Your task to perform on an android device: Go to ESPN.com Image 0: 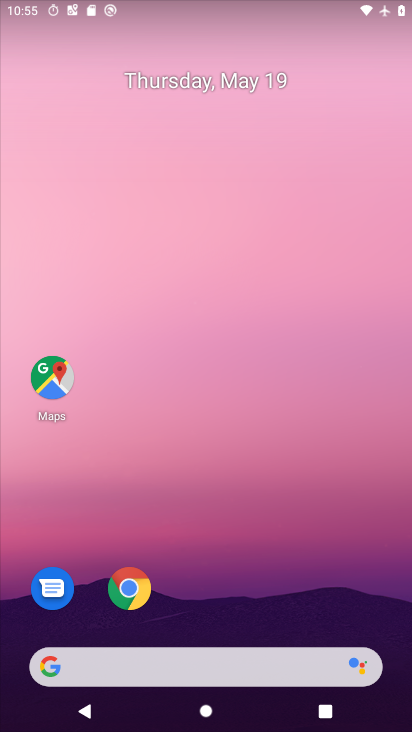
Step 0: press home button
Your task to perform on an android device: Go to ESPN.com Image 1: 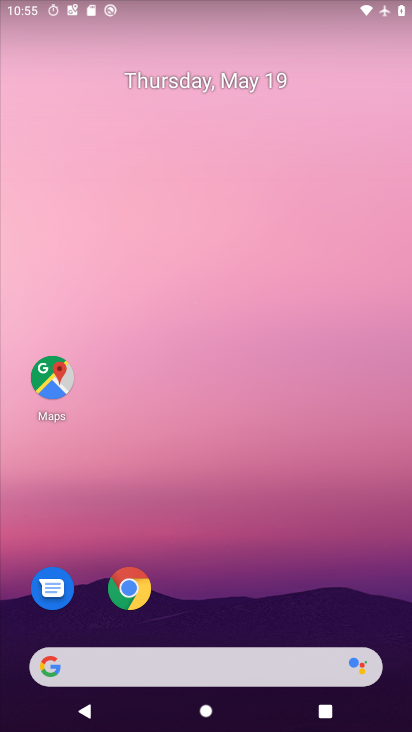
Step 1: click (132, 593)
Your task to perform on an android device: Go to ESPN.com Image 2: 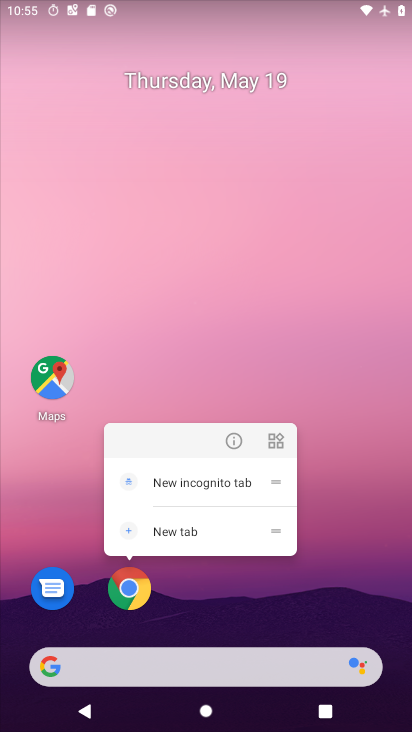
Step 2: click (133, 578)
Your task to perform on an android device: Go to ESPN.com Image 3: 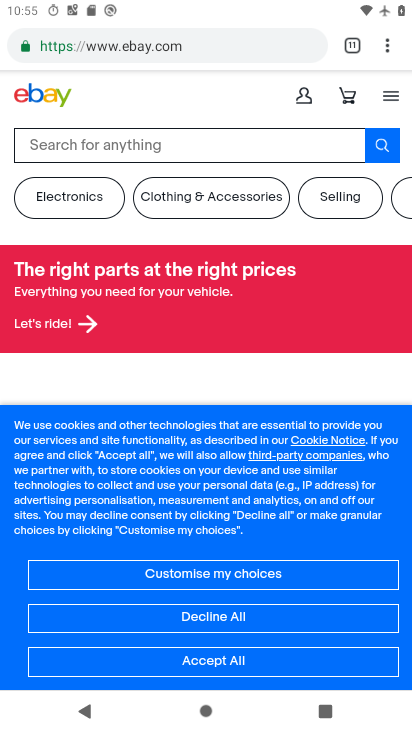
Step 3: drag from (390, 47) to (333, 85)
Your task to perform on an android device: Go to ESPN.com Image 4: 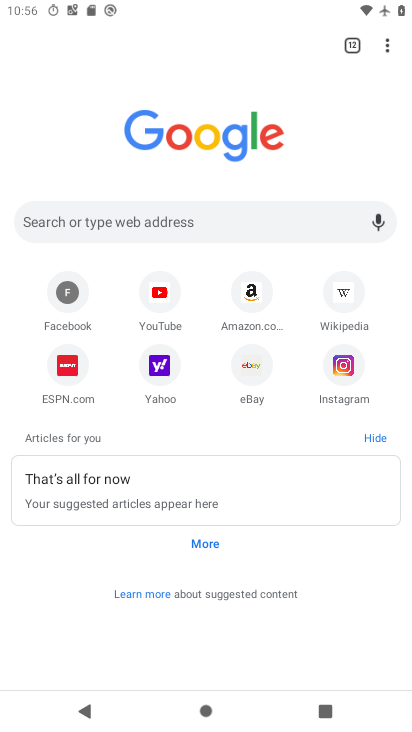
Step 4: click (70, 371)
Your task to perform on an android device: Go to ESPN.com Image 5: 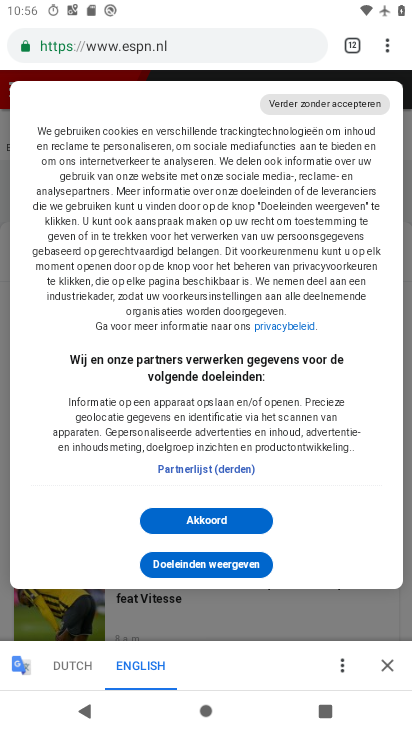
Step 5: click (154, 665)
Your task to perform on an android device: Go to ESPN.com Image 6: 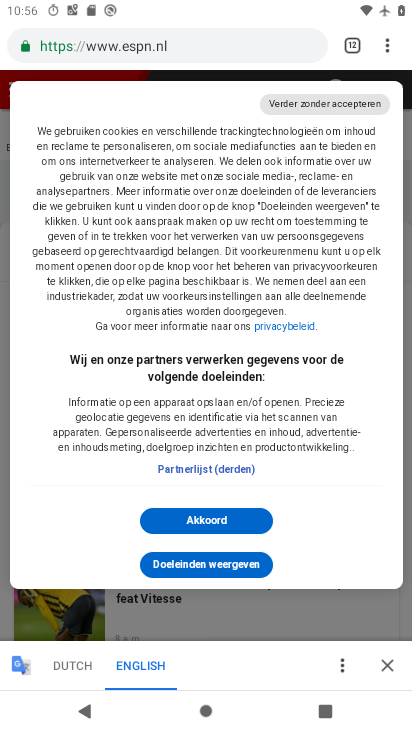
Step 6: click (234, 521)
Your task to perform on an android device: Go to ESPN.com Image 7: 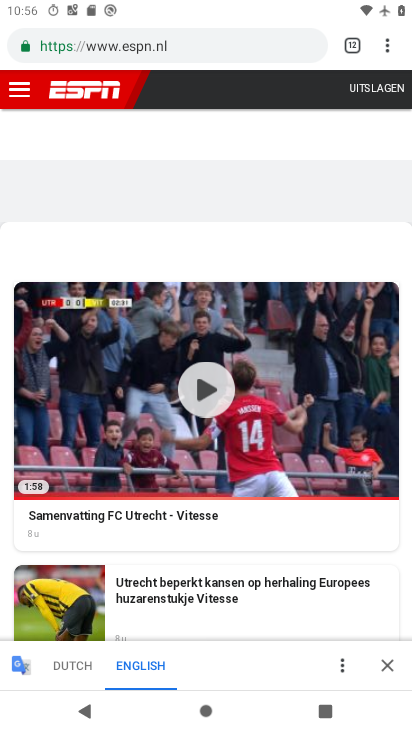
Step 7: task complete